Your task to perform on an android device: find which apps use the phone's location Image 0: 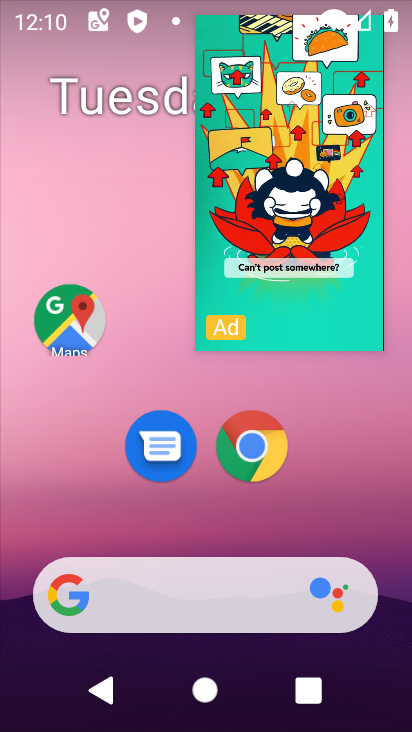
Step 0: click (348, 70)
Your task to perform on an android device: find which apps use the phone's location Image 1: 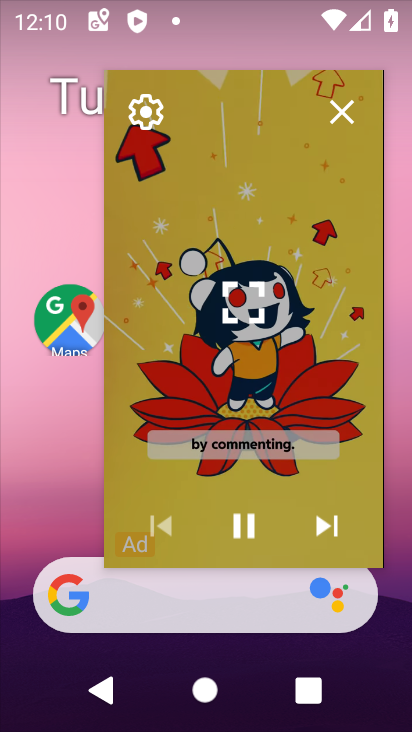
Step 1: click (341, 112)
Your task to perform on an android device: find which apps use the phone's location Image 2: 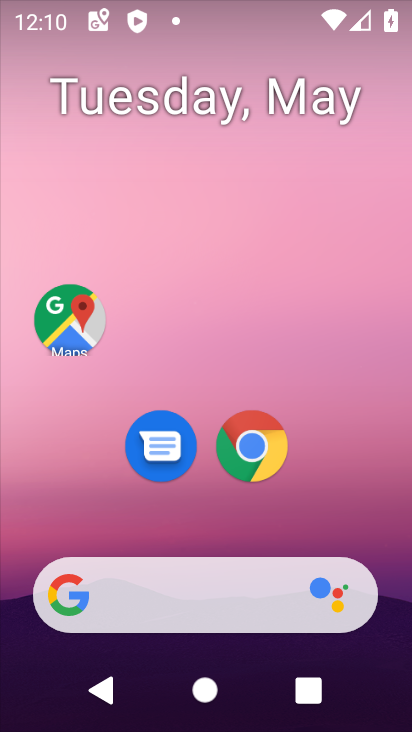
Step 2: drag from (361, 479) to (396, 56)
Your task to perform on an android device: find which apps use the phone's location Image 3: 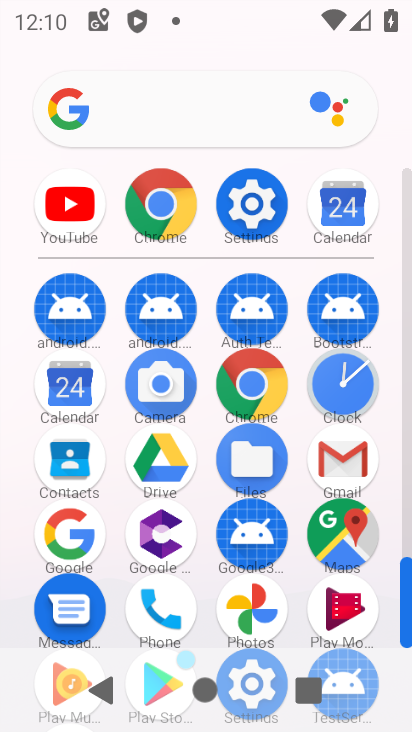
Step 3: click (271, 206)
Your task to perform on an android device: find which apps use the phone's location Image 4: 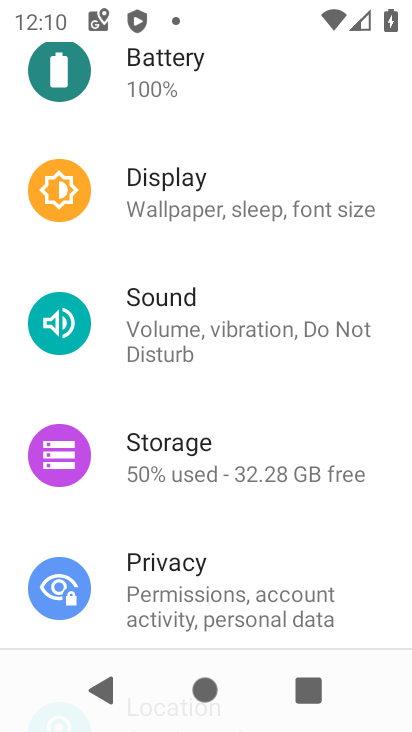
Step 4: drag from (235, 561) to (330, 1)
Your task to perform on an android device: find which apps use the phone's location Image 5: 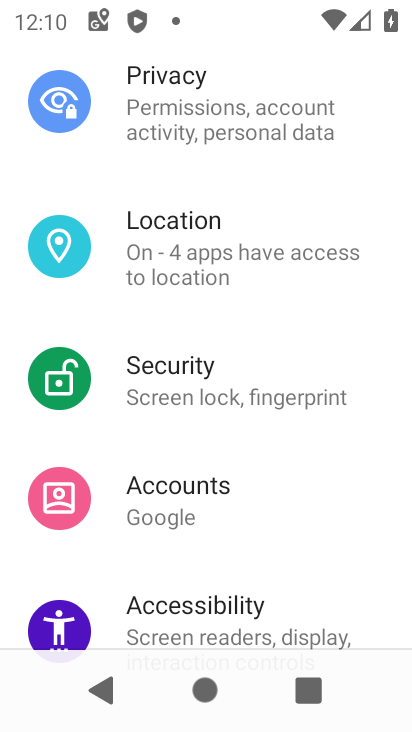
Step 5: click (191, 261)
Your task to perform on an android device: find which apps use the phone's location Image 6: 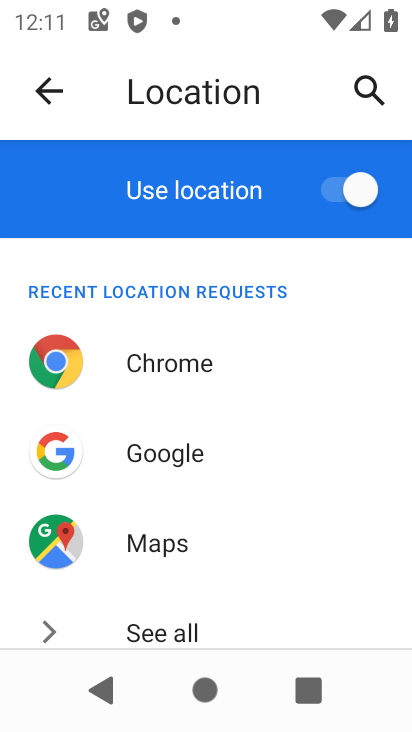
Step 6: drag from (241, 623) to (275, 217)
Your task to perform on an android device: find which apps use the phone's location Image 7: 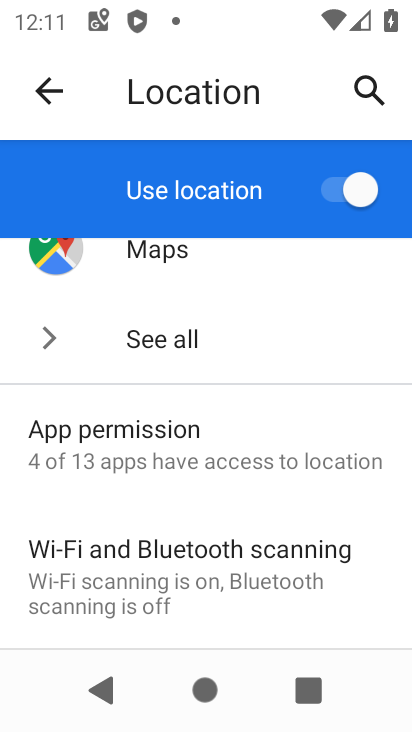
Step 7: drag from (179, 462) to (198, 250)
Your task to perform on an android device: find which apps use the phone's location Image 8: 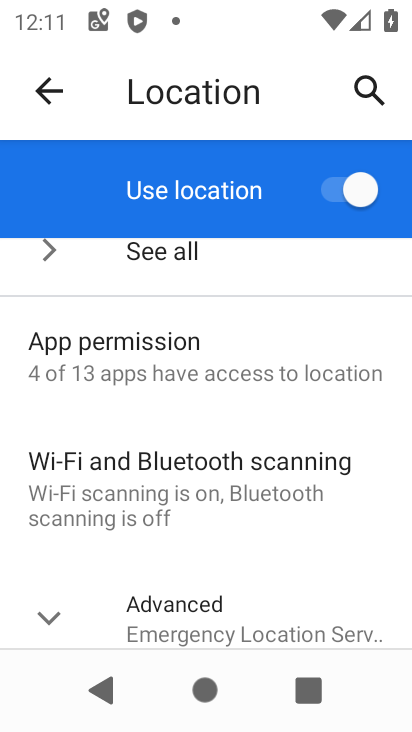
Step 8: click (149, 354)
Your task to perform on an android device: find which apps use the phone's location Image 9: 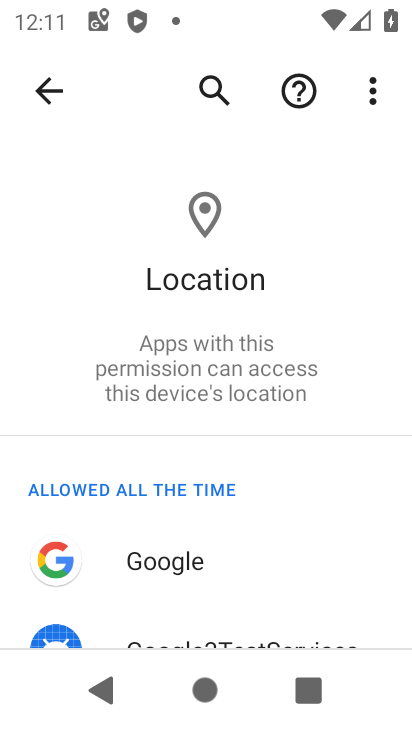
Step 9: task complete